Your task to perform on an android device: change timer sound Image 0: 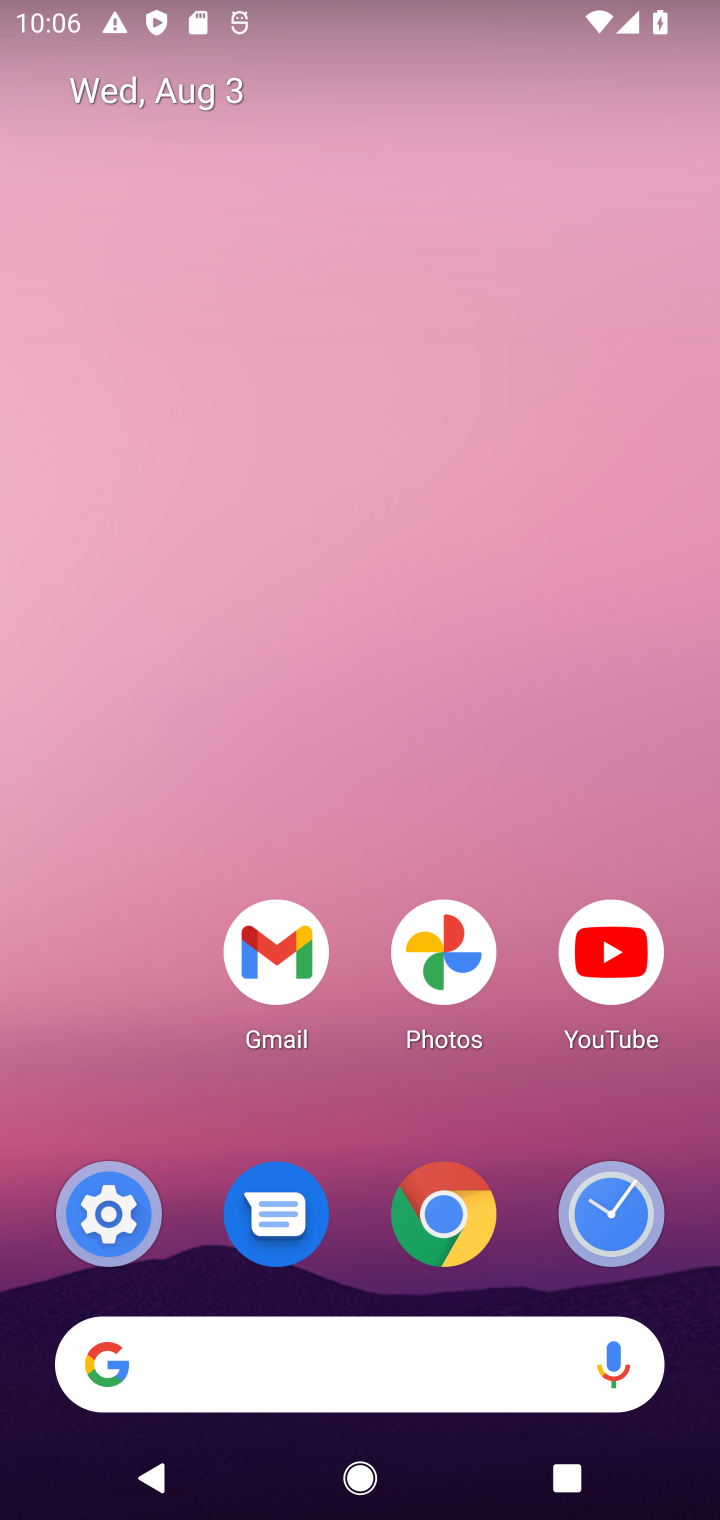
Step 0: press home button
Your task to perform on an android device: change timer sound Image 1: 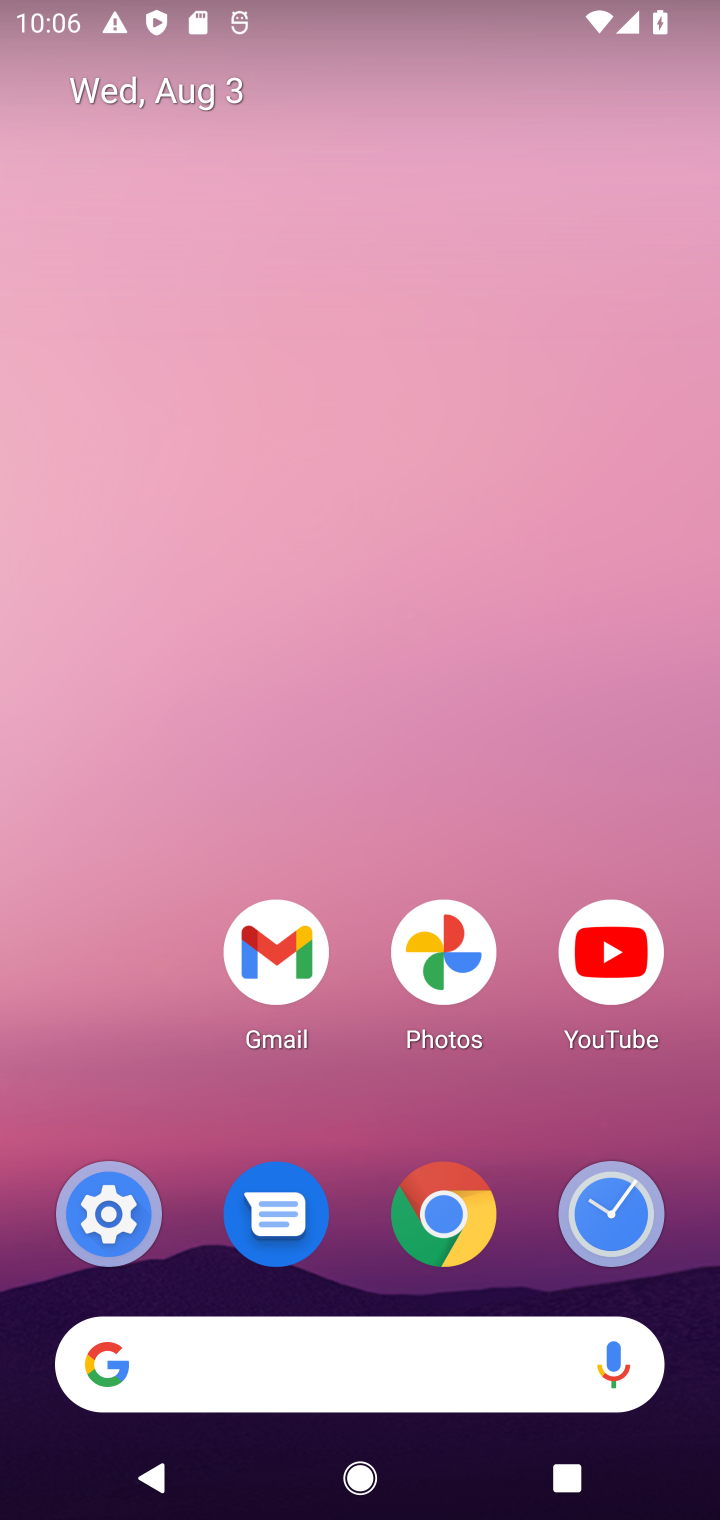
Step 1: click (602, 1209)
Your task to perform on an android device: change timer sound Image 2: 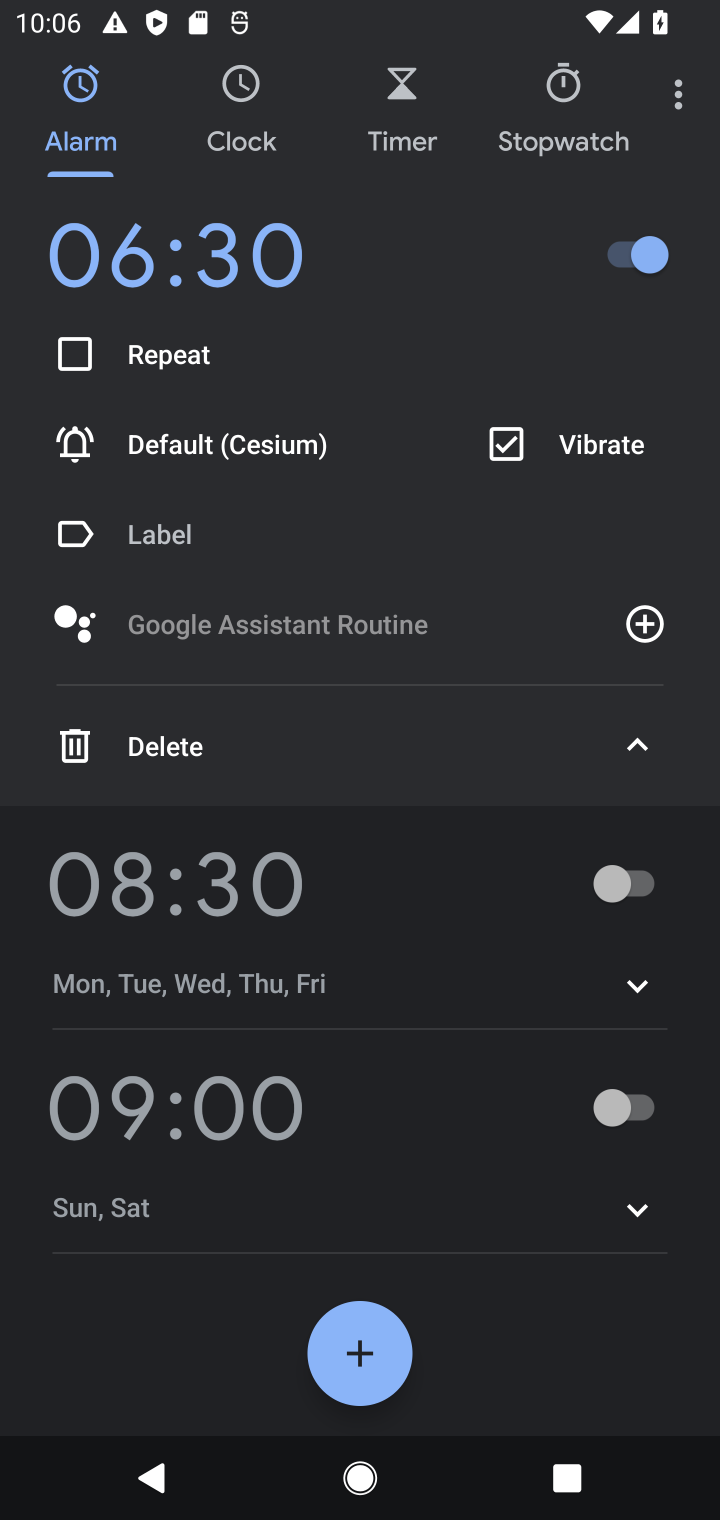
Step 2: click (644, 111)
Your task to perform on an android device: change timer sound Image 3: 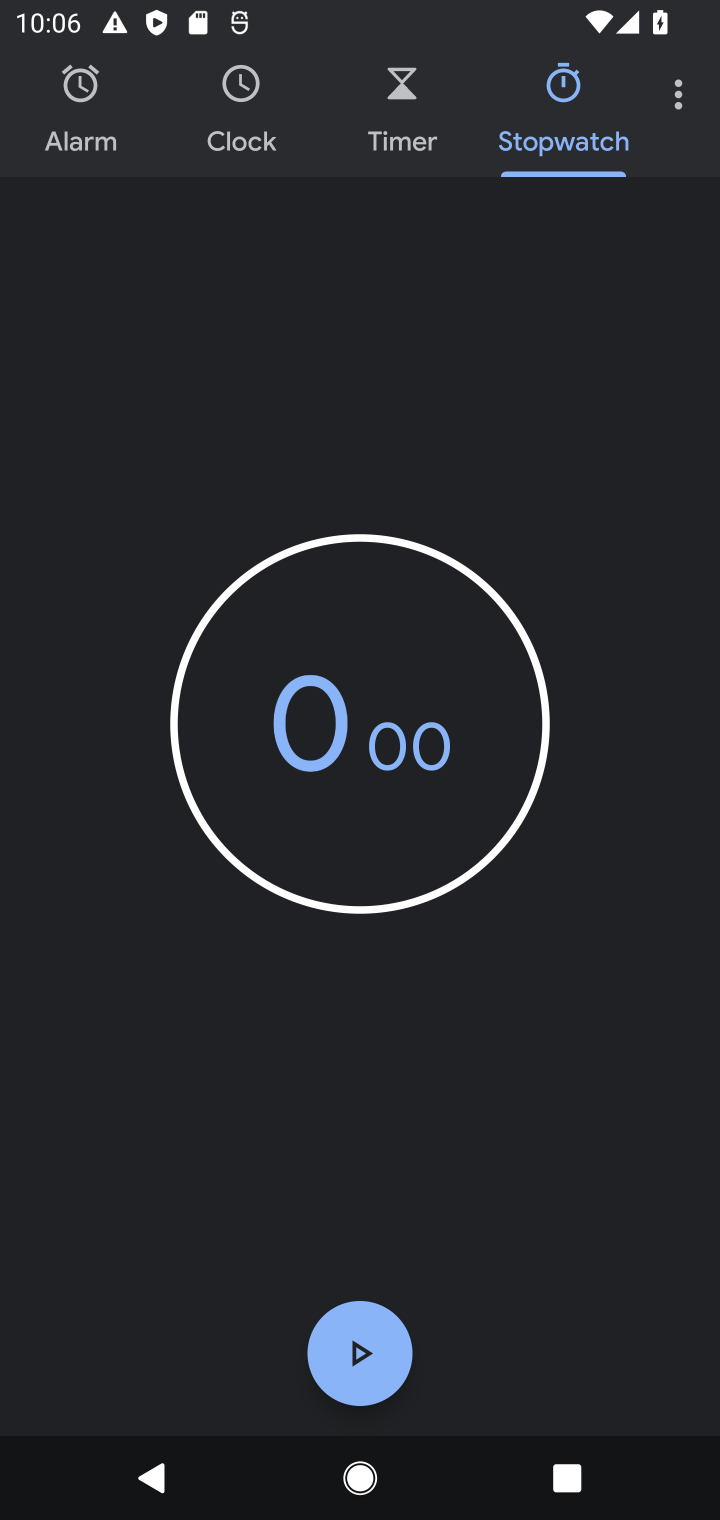
Step 3: click (681, 111)
Your task to perform on an android device: change timer sound Image 4: 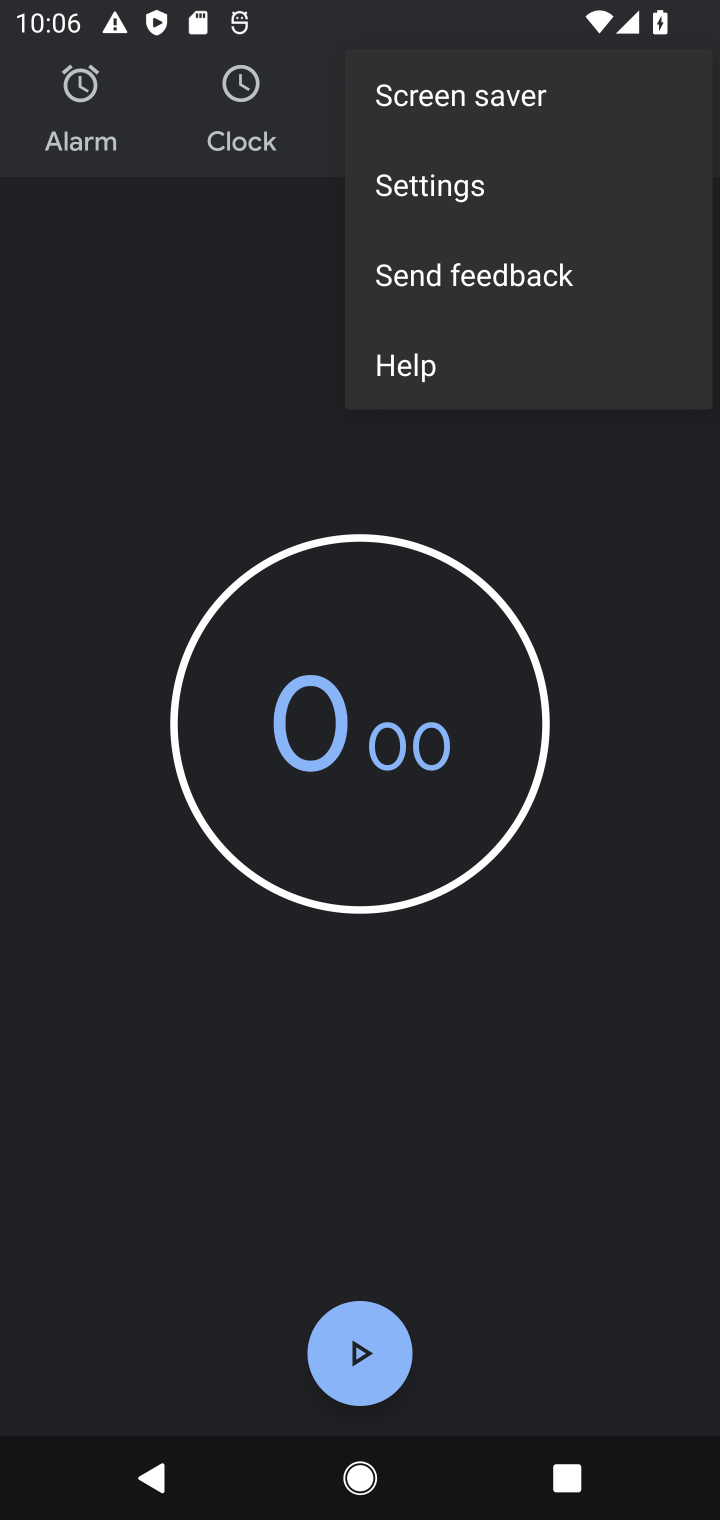
Step 4: click (484, 207)
Your task to perform on an android device: change timer sound Image 5: 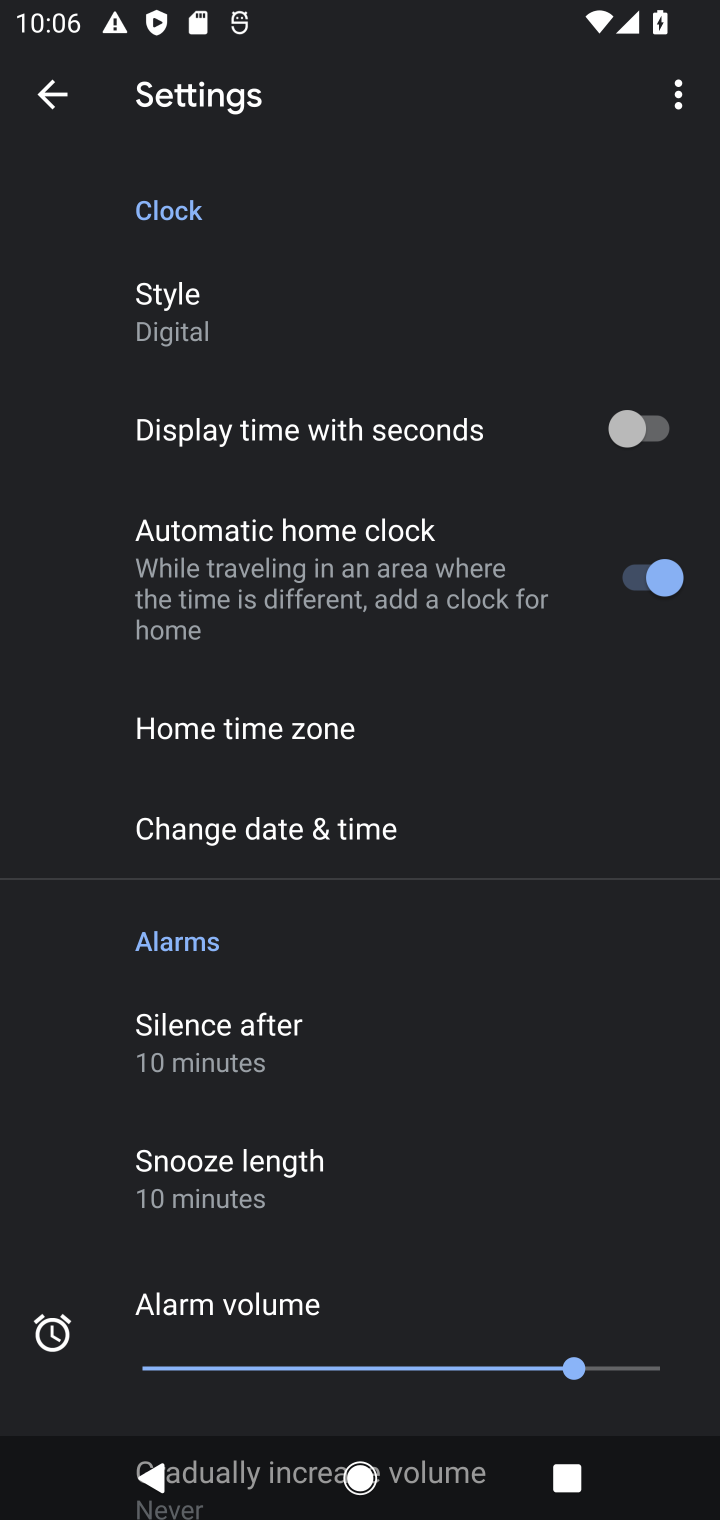
Step 5: drag from (322, 1212) to (332, 20)
Your task to perform on an android device: change timer sound Image 6: 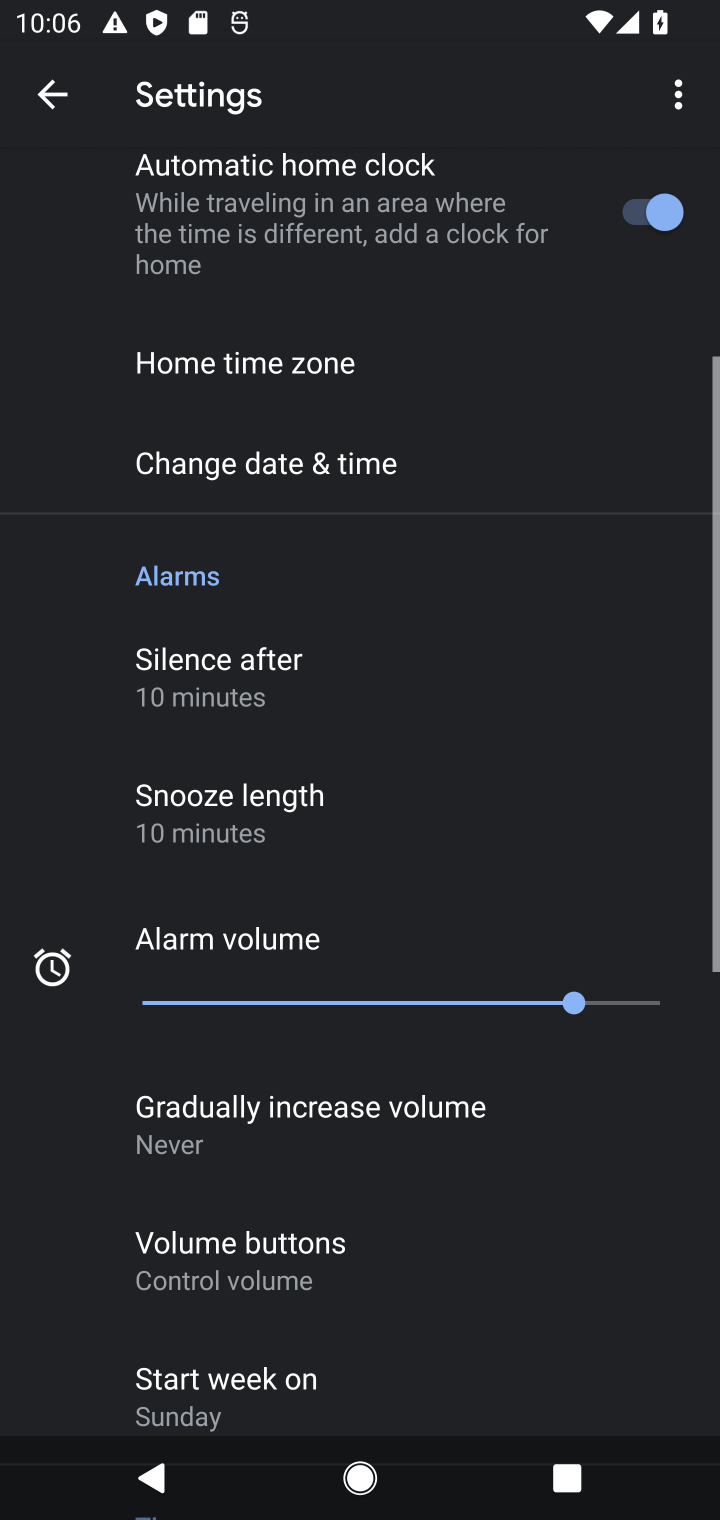
Step 6: click (369, 764)
Your task to perform on an android device: change timer sound Image 7: 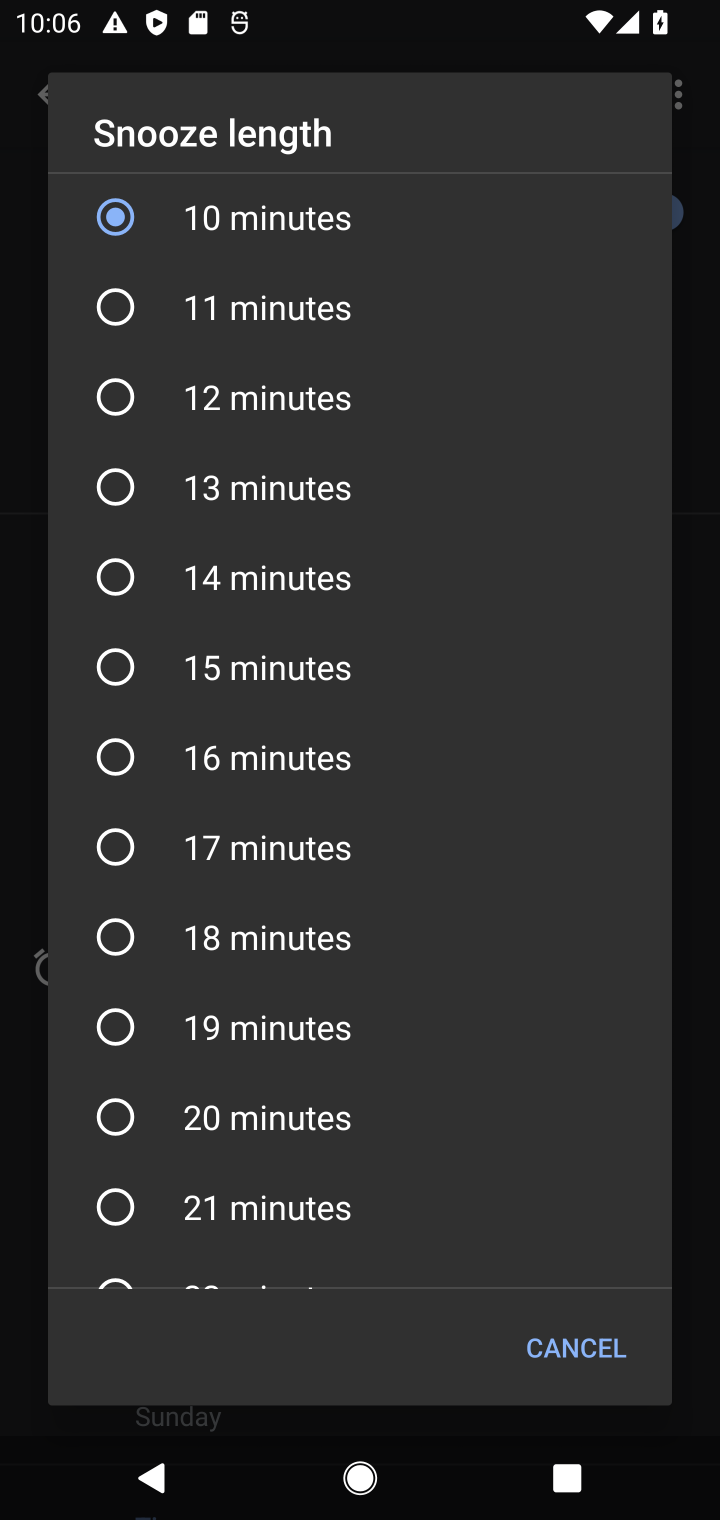
Step 7: click (590, 1353)
Your task to perform on an android device: change timer sound Image 8: 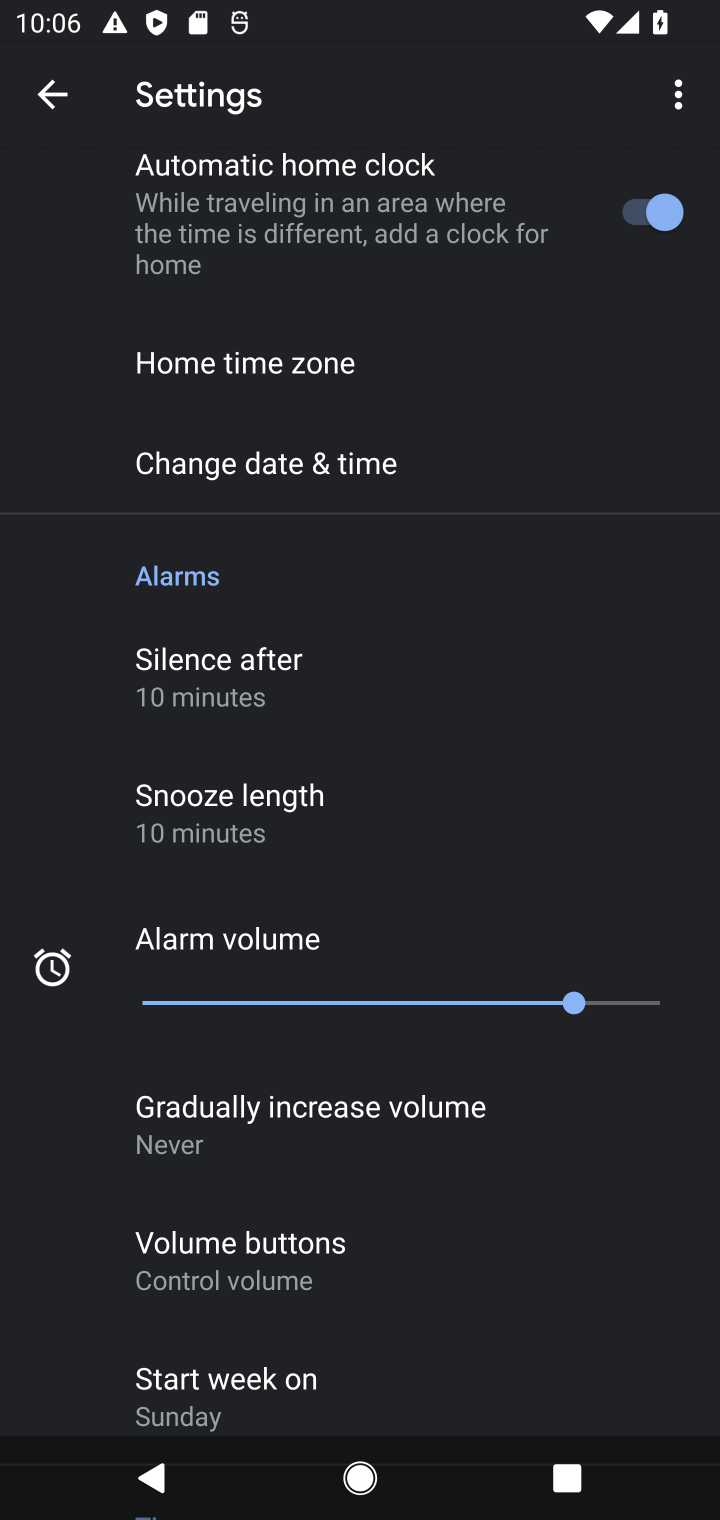
Step 8: drag from (590, 1353) to (560, 136)
Your task to perform on an android device: change timer sound Image 9: 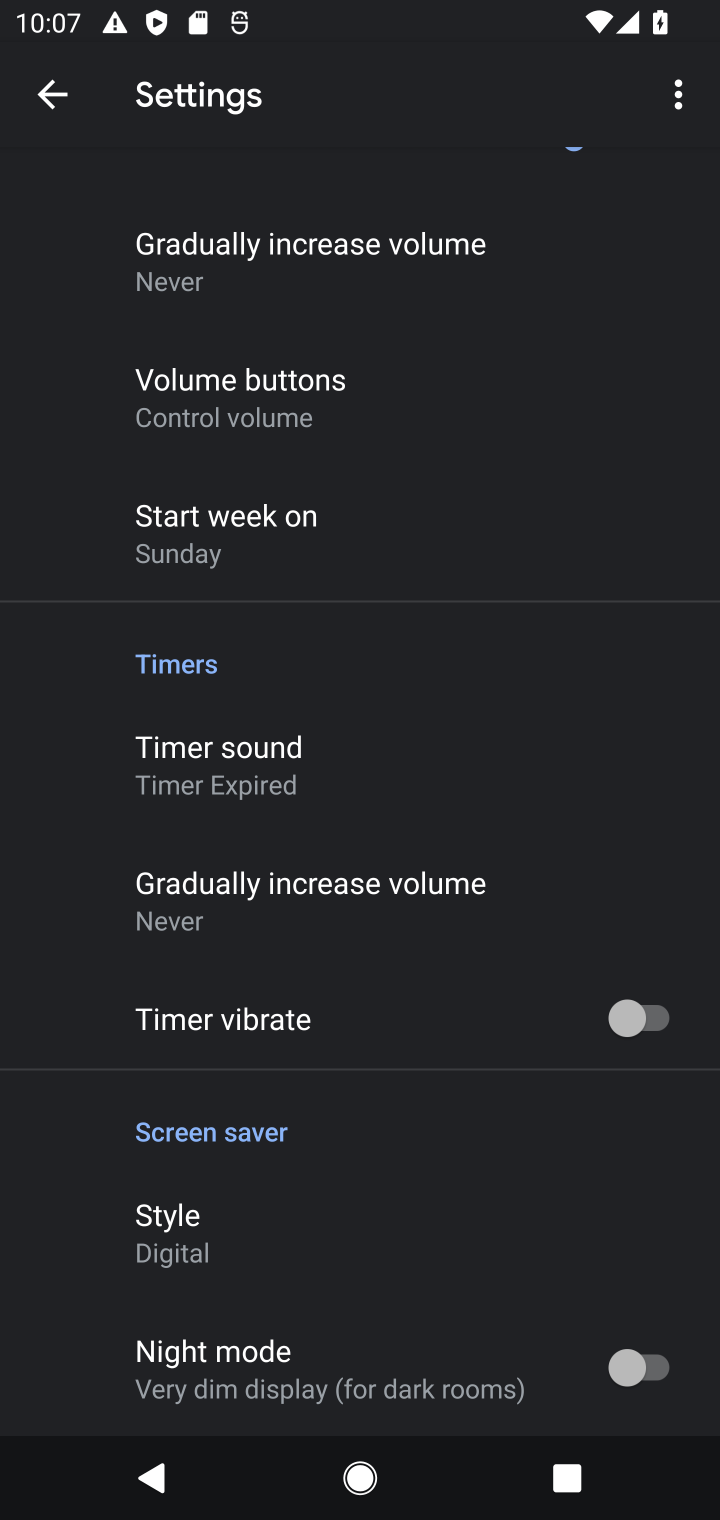
Step 9: click (296, 752)
Your task to perform on an android device: change timer sound Image 10: 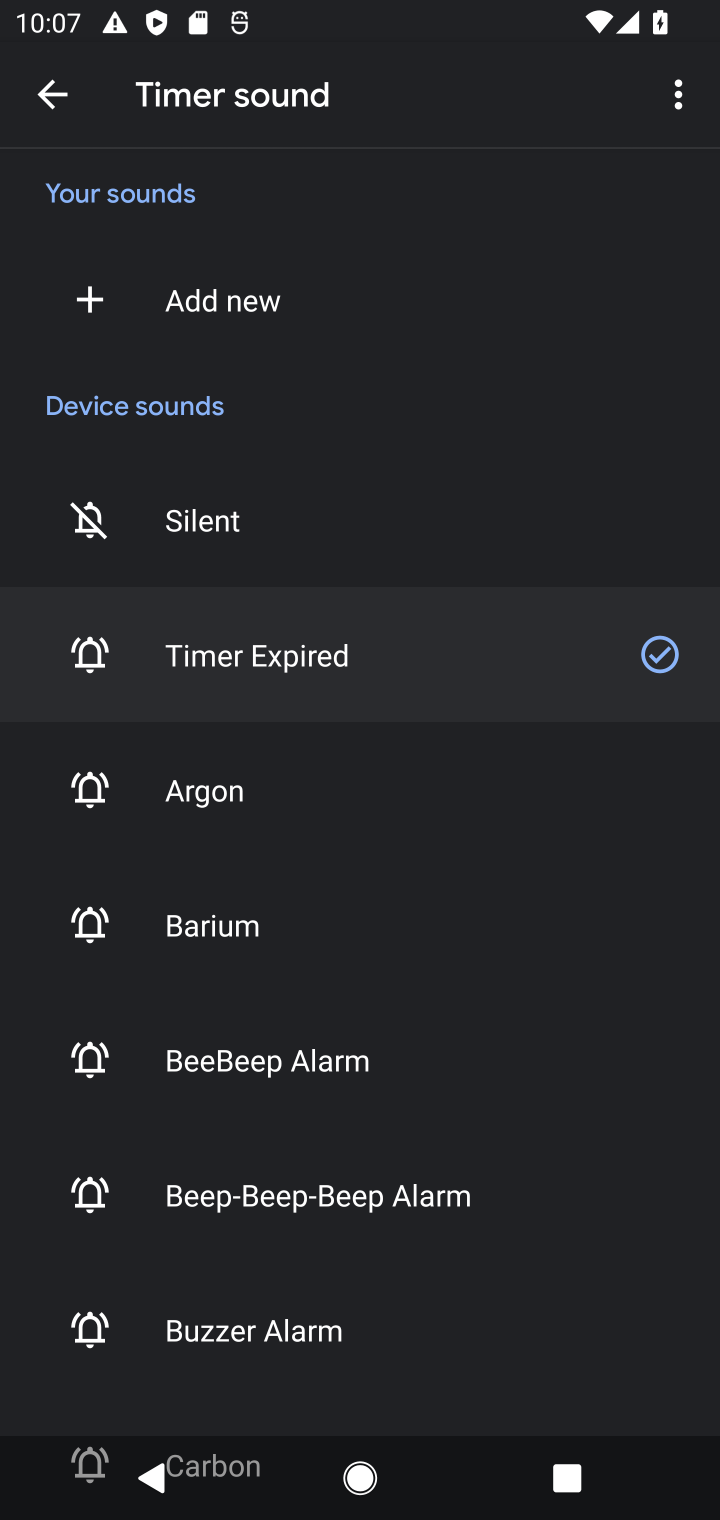
Step 10: click (253, 1195)
Your task to perform on an android device: change timer sound Image 11: 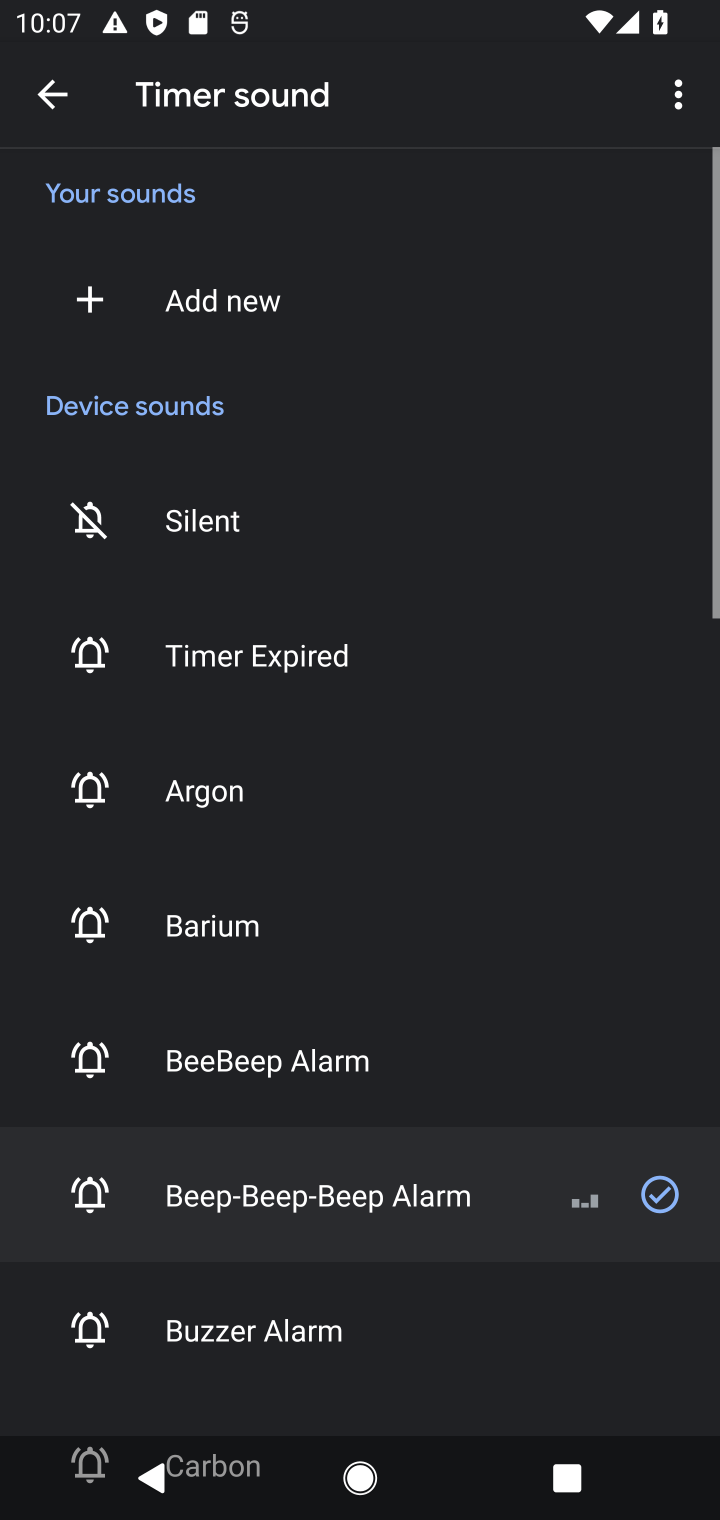
Step 11: task complete